Your task to perform on an android device: Show me popular games on the Play Store Image 0: 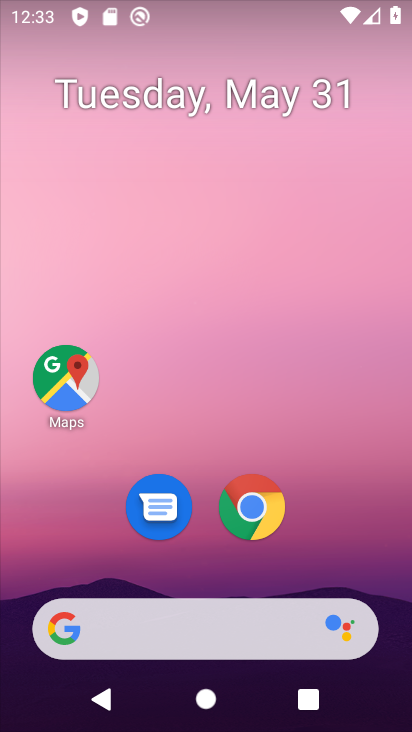
Step 0: drag from (355, 567) to (217, 192)
Your task to perform on an android device: Show me popular games on the Play Store Image 1: 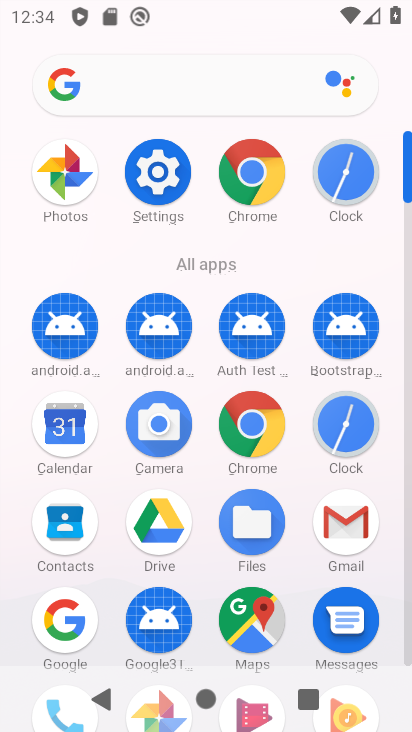
Step 1: click (409, 578)
Your task to perform on an android device: Show me popular games on the Play Store Image 2: 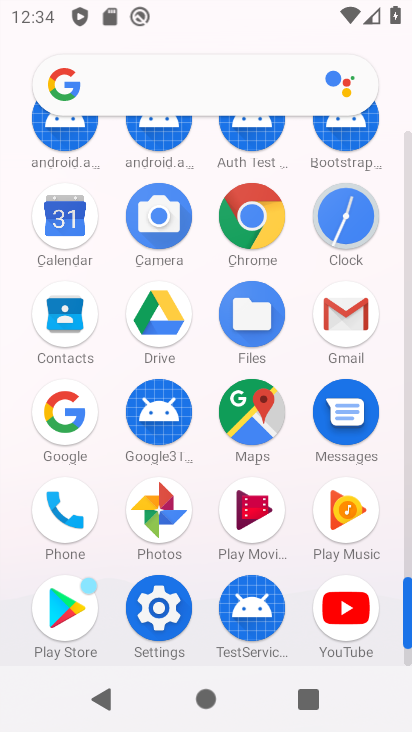
Step 2: click (65, 631)
Your task to perform on an android device: Show me popular games on the Play Store Image 3: 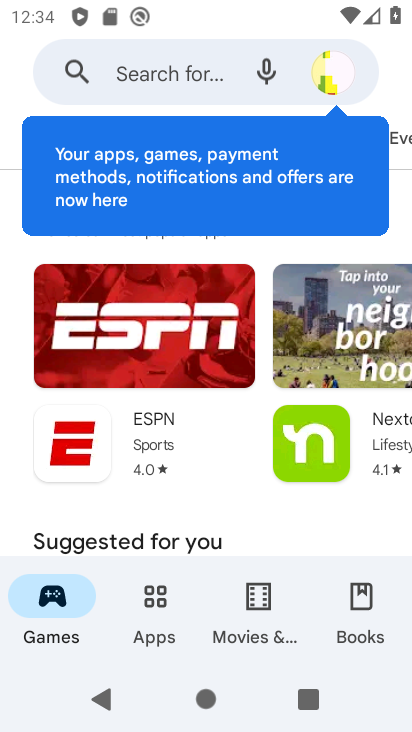
Step 3: click (170, 69)
Your task to perform on an android device: Show me popular games on the Play Store Image 4: 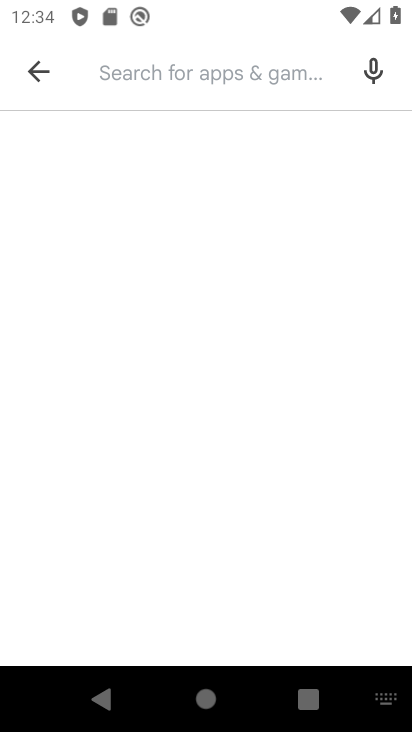
Step 4: type "popular games"
Your task to perform on an android device: Show me popular games on the Play Store Image 5: 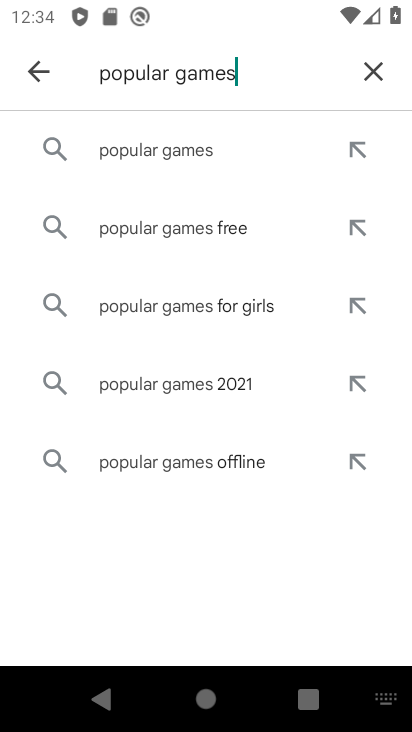
Step 5: click (74, 162)
Your task to perform on an android device: Show me popular games on the Play Store Image 6: 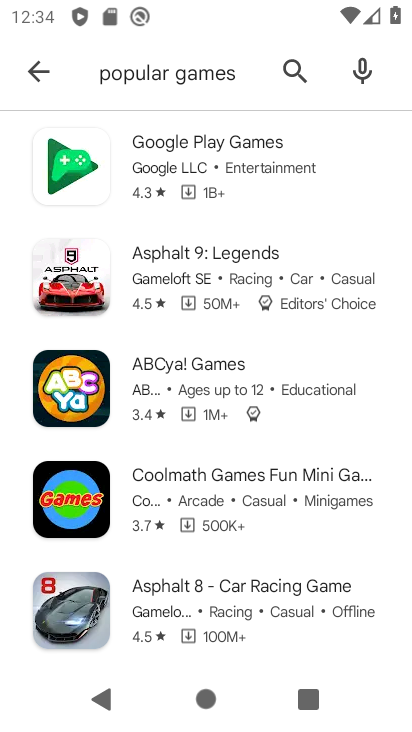
Step 6: task complete